Your task to perform on an android device: Search for pizza restaurants on Maps Image 0: 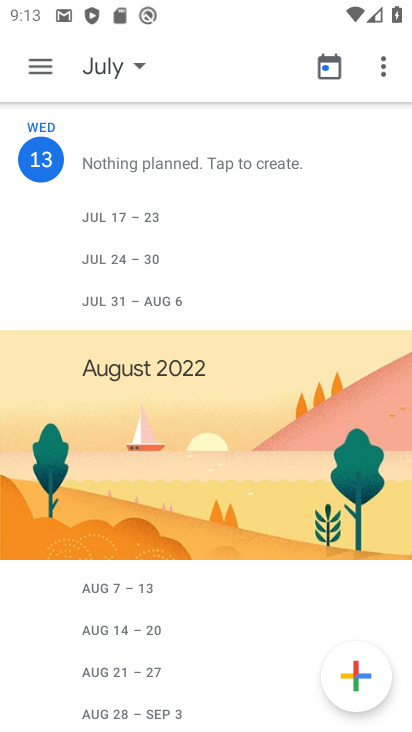
Step 0: press home button
Your task to perform on an android device: Search for pizza restaurants on Maps Image 1: 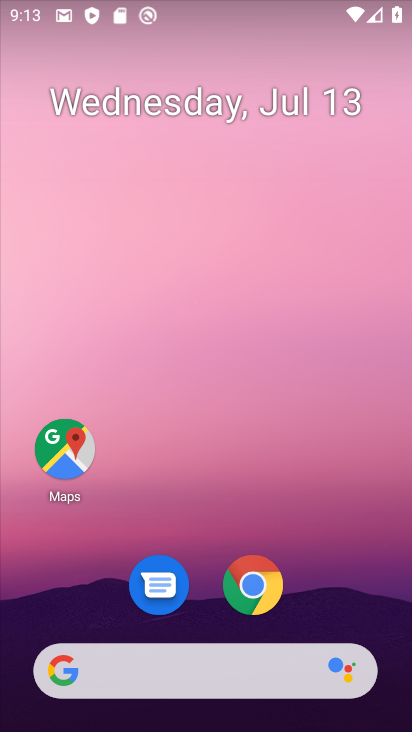
Step 1: click (55, 455)
Your task to perform on an android device: Search for pizza restaurants on Maps Image 2: 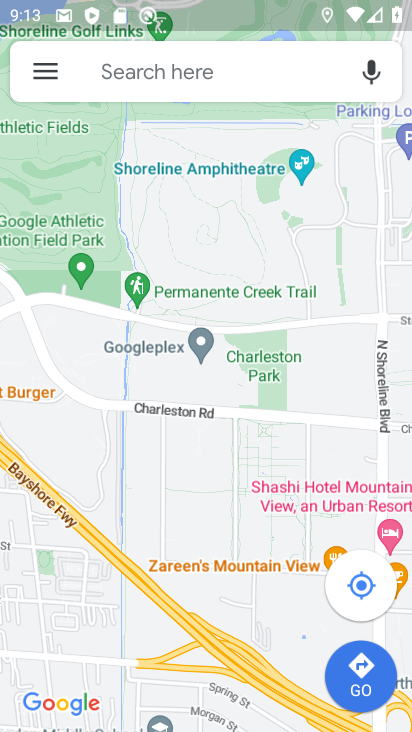
Step 2: click (199, 70)
Your task to perform on an android device: Search for pizza restaurants on Maps Image 3: 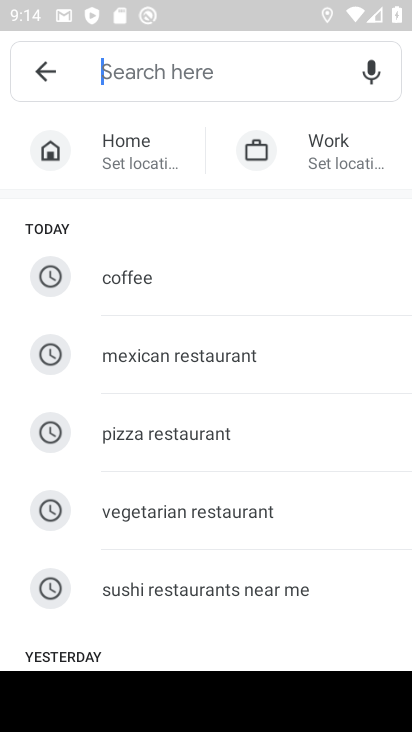
Step 3: click (189, 434)
Your task to perform on an android device: Search for pizza restaurants on Maps Image 4: 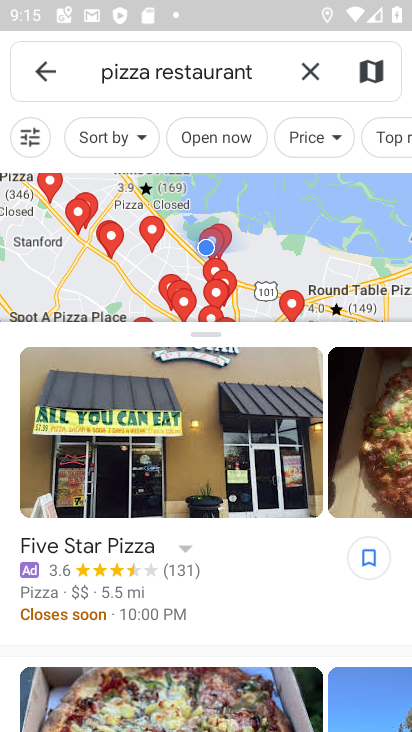
Step 4: task complete